Your task to perform on an android device: uninstall "NewsBreak: Local News & Alerts" Image 0: 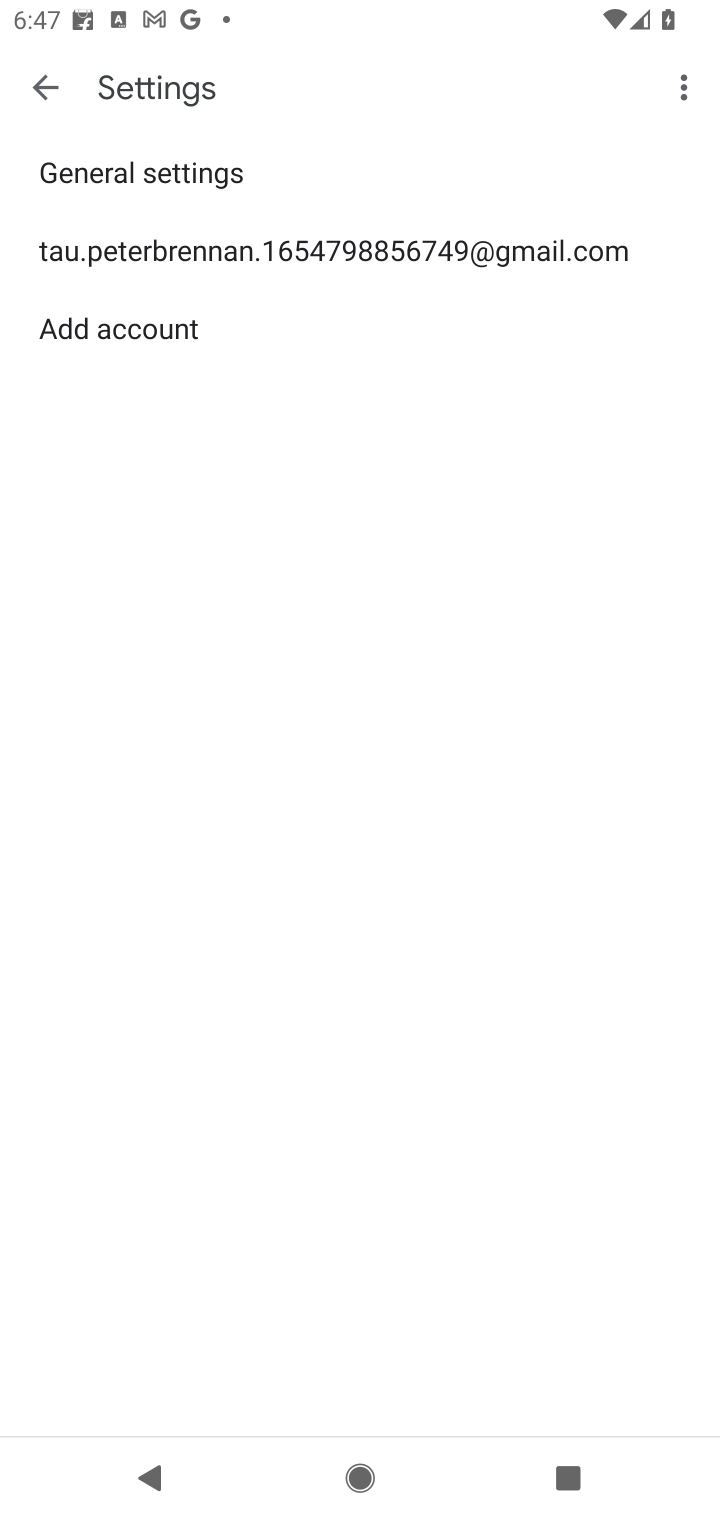
Step 0: press home button
Your task to perform on an android device: uninstall "NewsBreak: Local News & Alerts" Image 1: 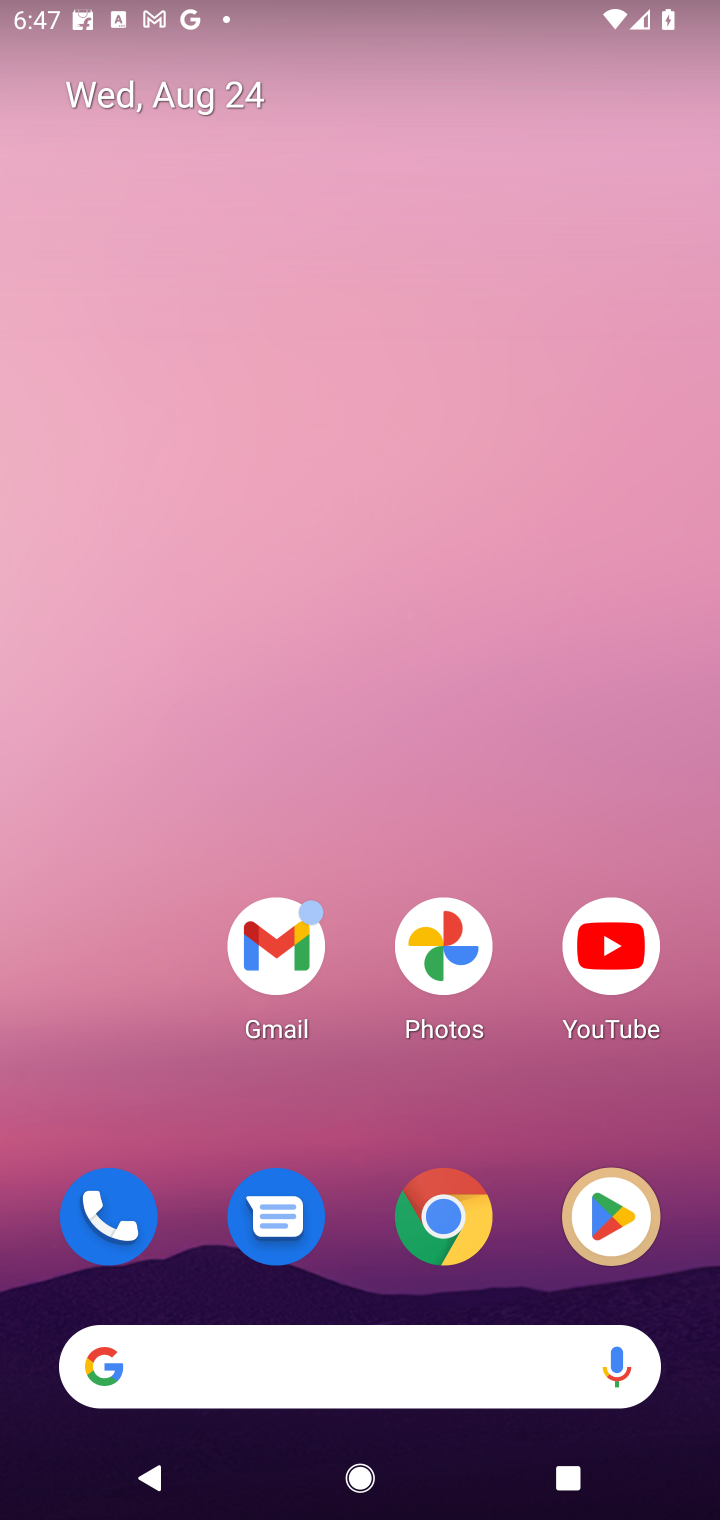
Step 1: click (590, 1210)
Your task to perform on an android device: uninstall "NewsBreak: Local News & Alerts" Image 2: 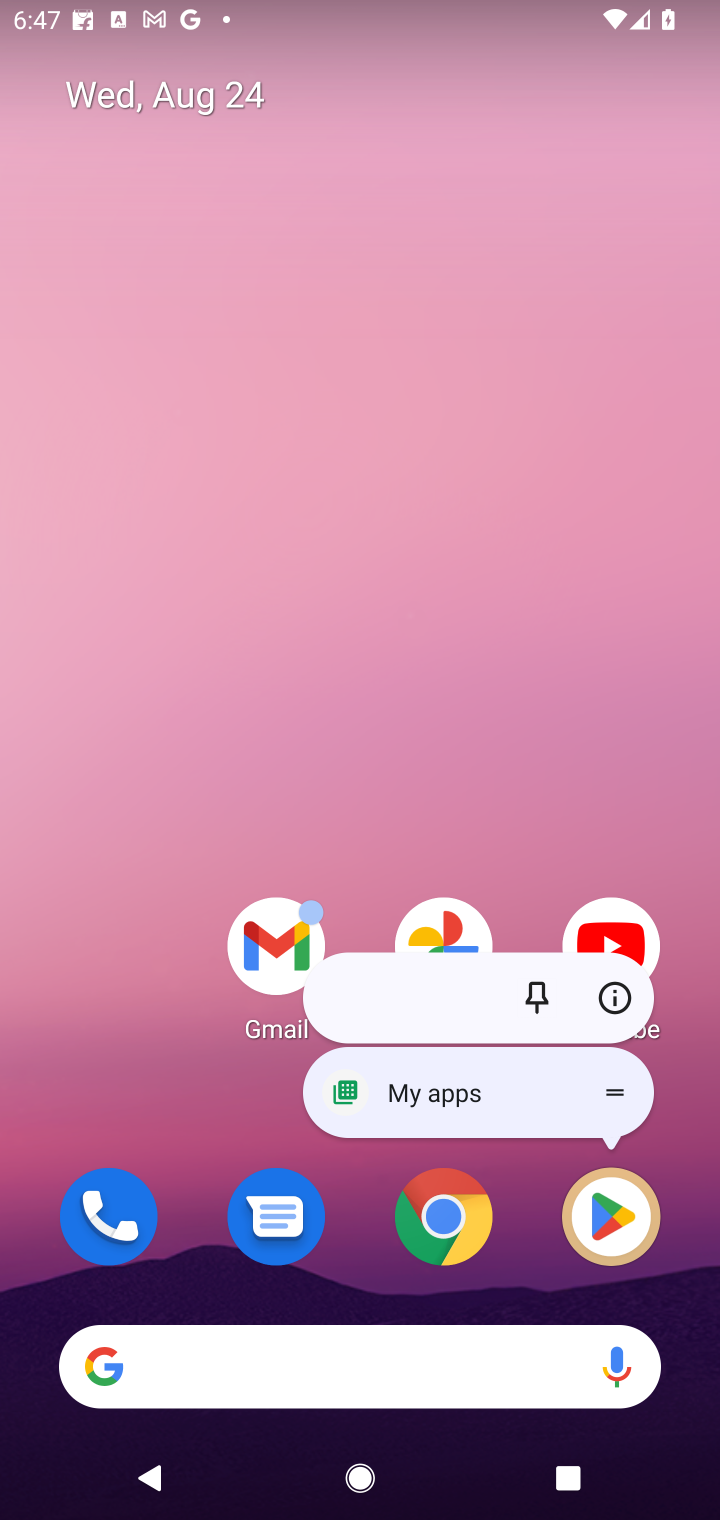
Step 2: click (604, 1182)
Your task to perform on an android device: uninstall "NewsBreak: Local News & Alerts" Image 3: 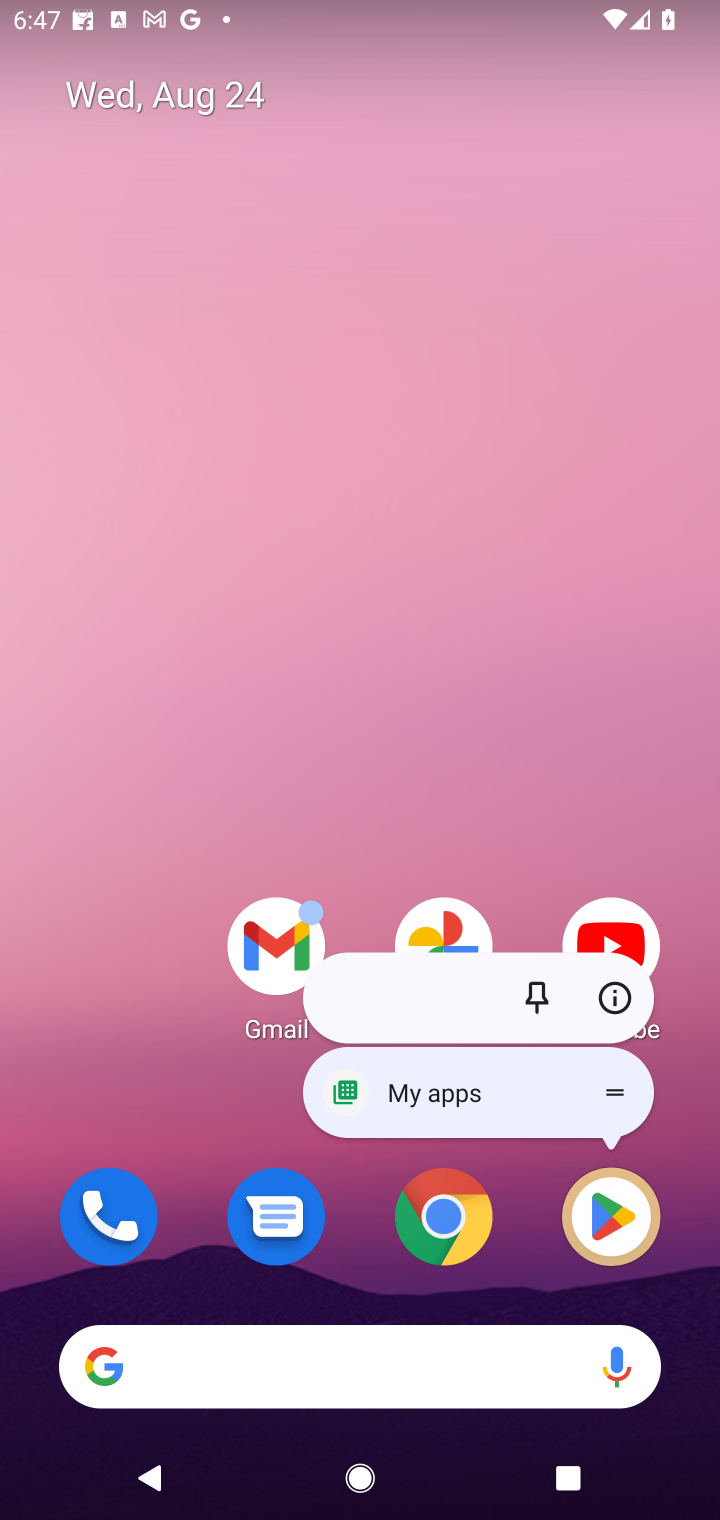
Step 3: click (585, 1201)
Your task to perform on an android device: uninstall "NewsBreak: Local News & Alerts" Image 4: 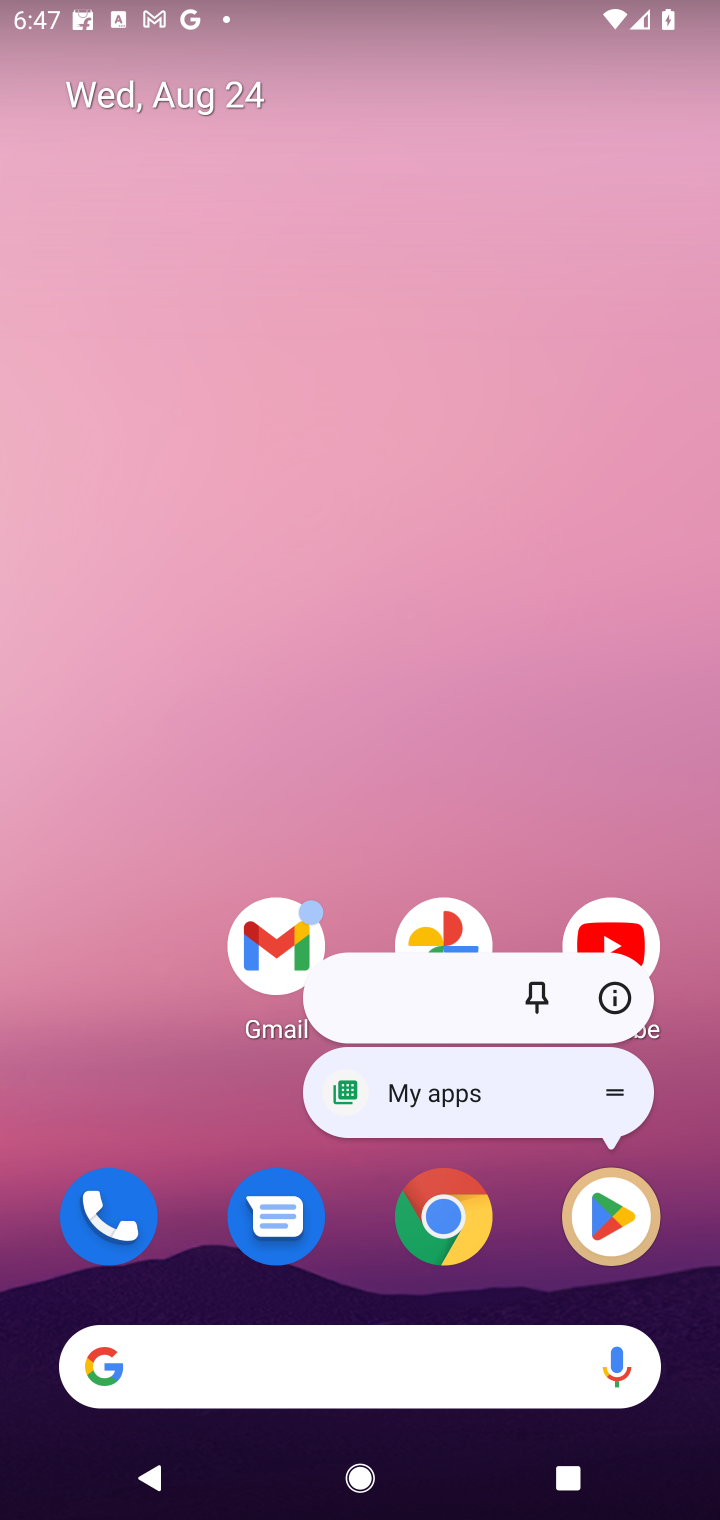
Step 4: click (576, 1219)
Your task to perform on an android device: uninstall "NewsBreak: Local News & Alerts" Image 5: 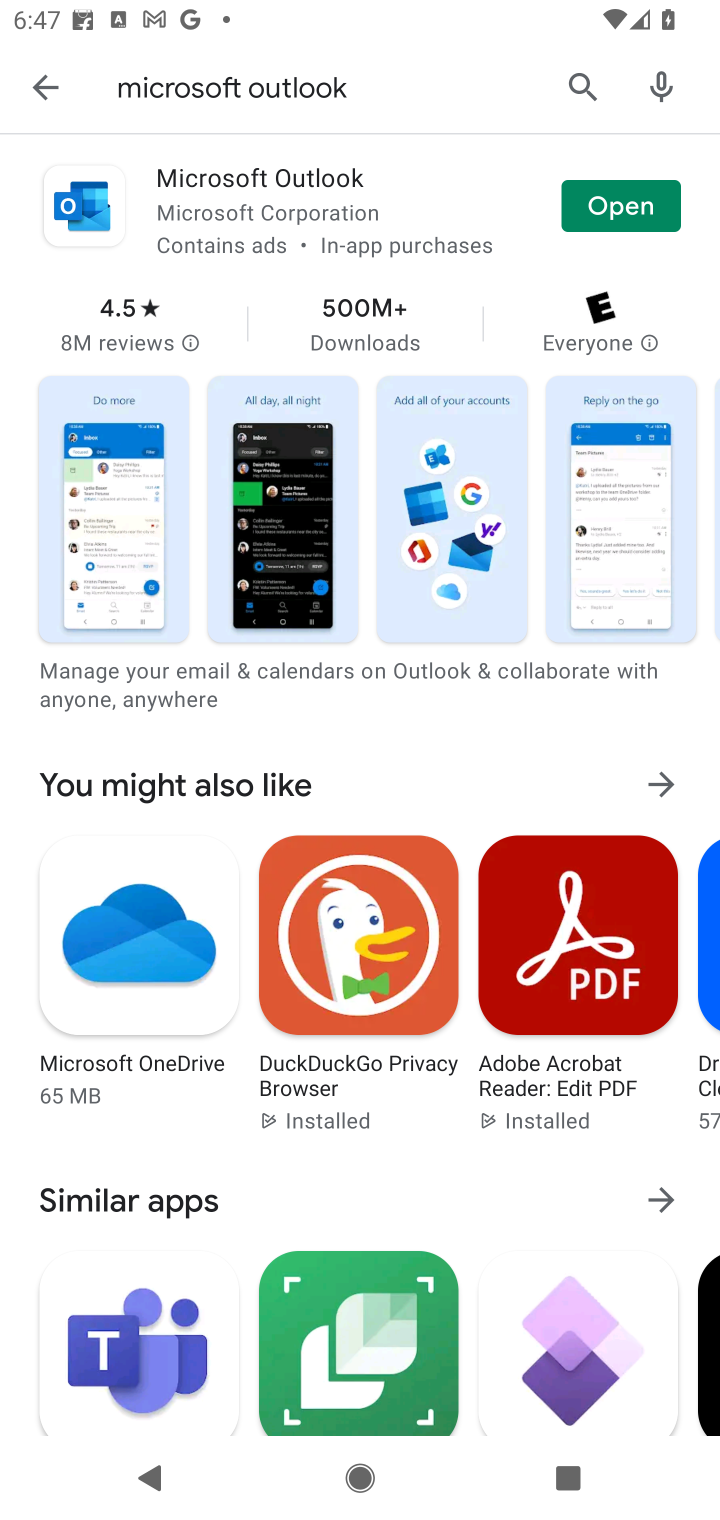
Step 5: click (593, 103)
Your task to perform on an android device: uninstall "NewsBreak: Local News & Alerts" Image 6: 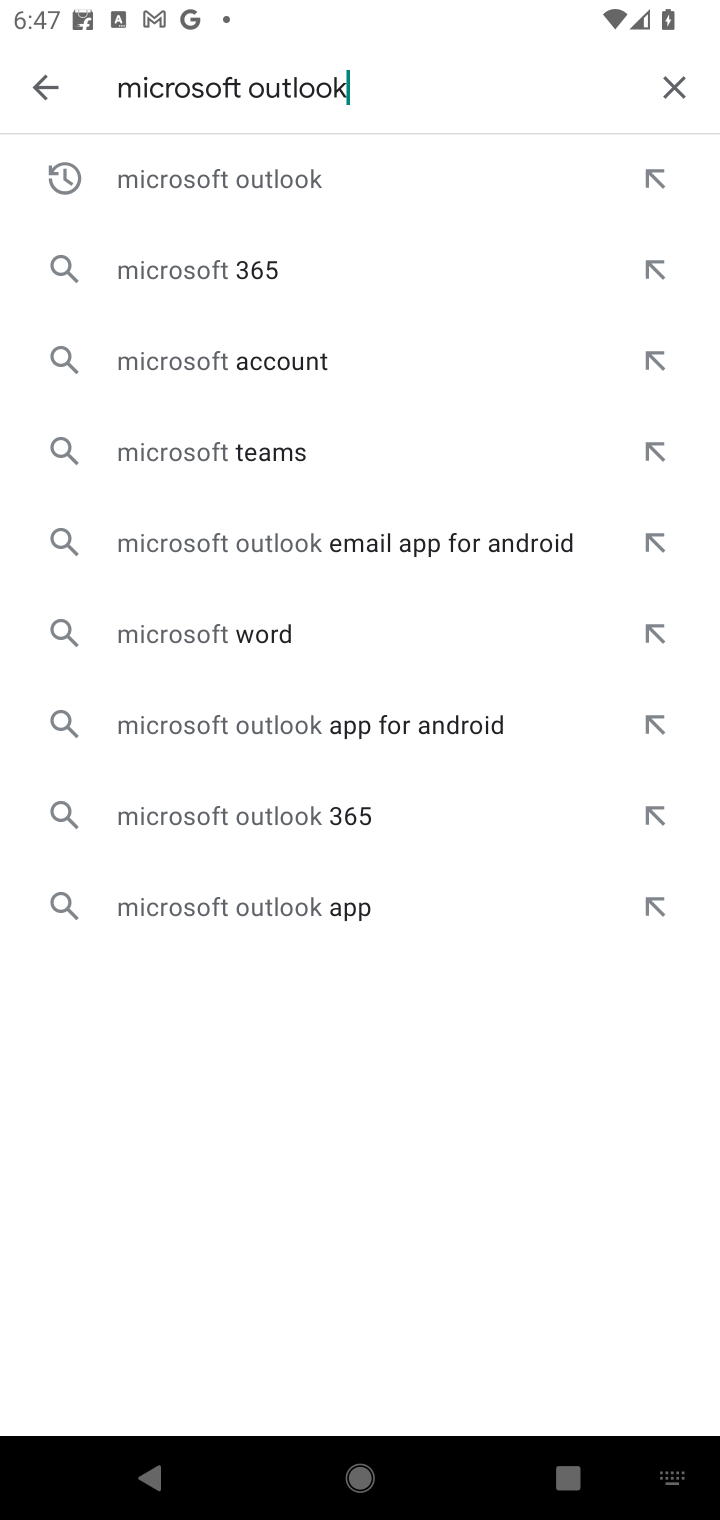
Step 6: click (672, 86)
Your task to perform on an android device: uninstall "NewsBreak: Local News & Alerts" Image 7: 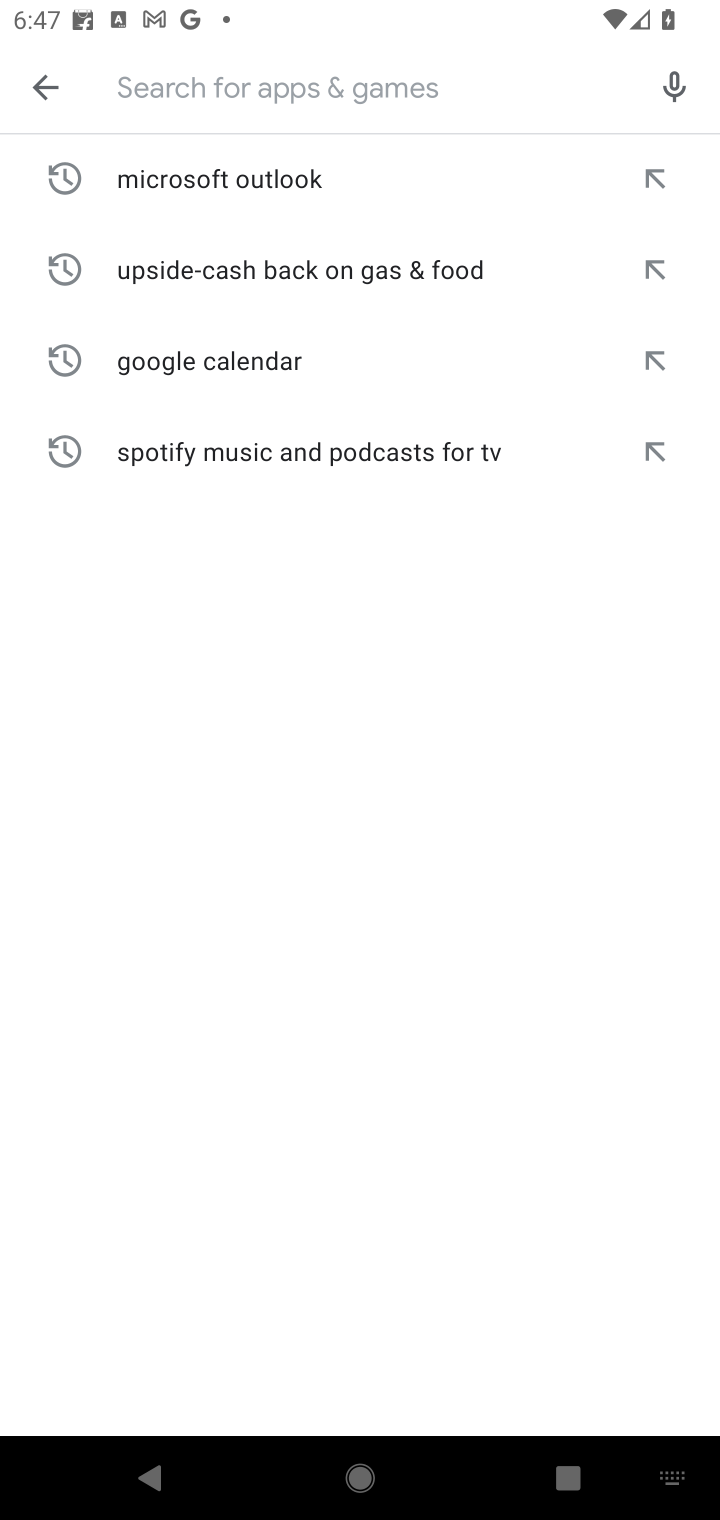
Step 7: type "NewsBreak: Local News & Alerts"
Your task to perform on an android device: uninstall "NewsBreak: Local News & Alerts" Image 8: 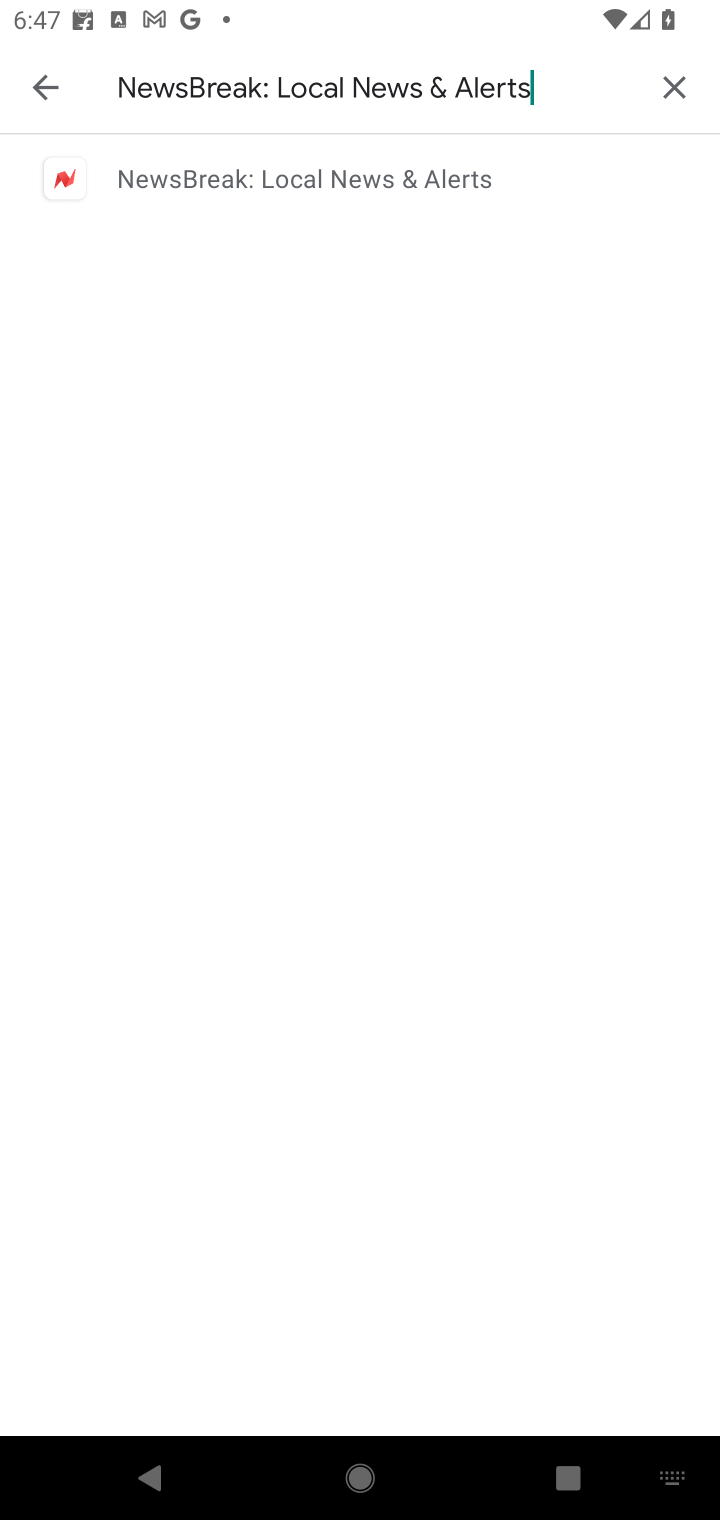
Step 8: click (343, 173)
Your task to perform on an android device: uninstall "NewsBreak: Local News & Alerts" Image 9: 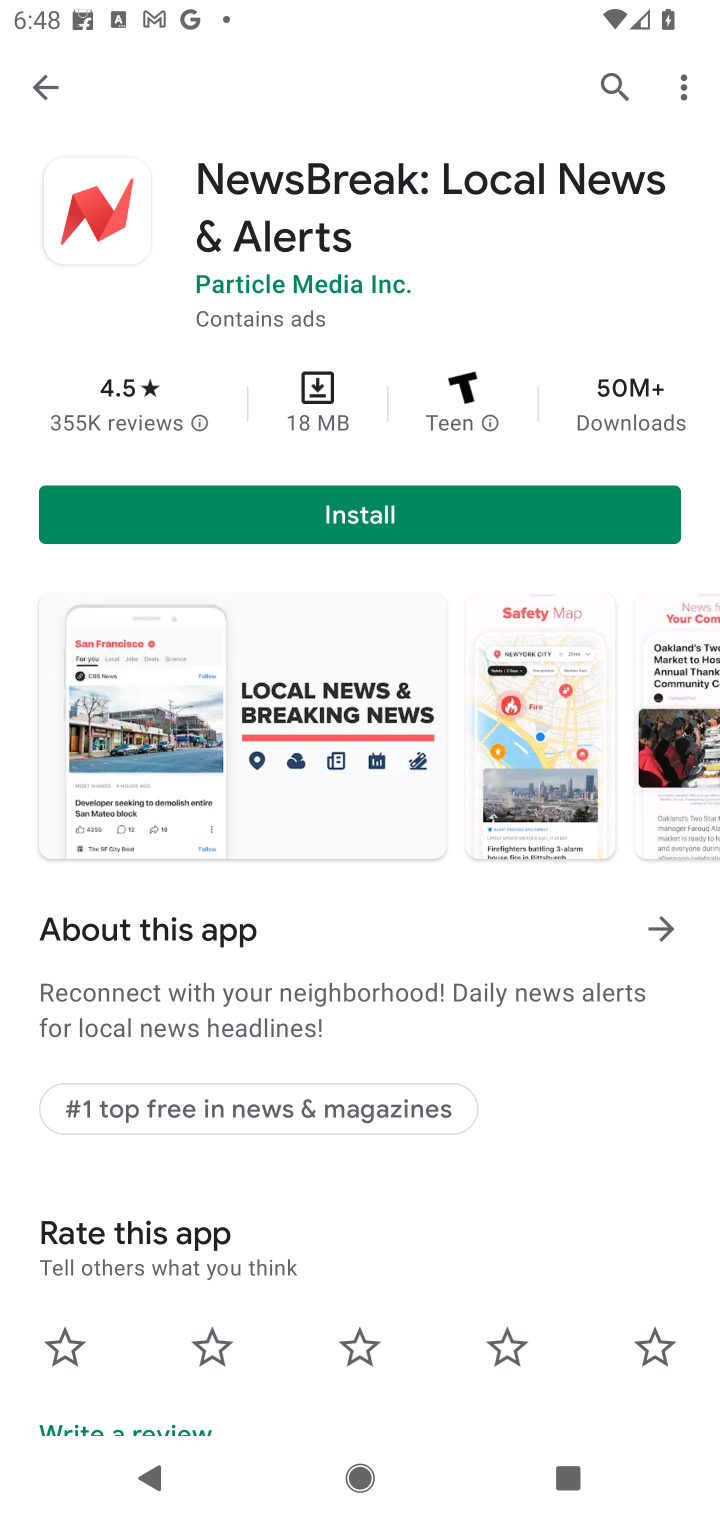
Step 9: task complete